Your task to perform on an android device: check battery use Image 0: 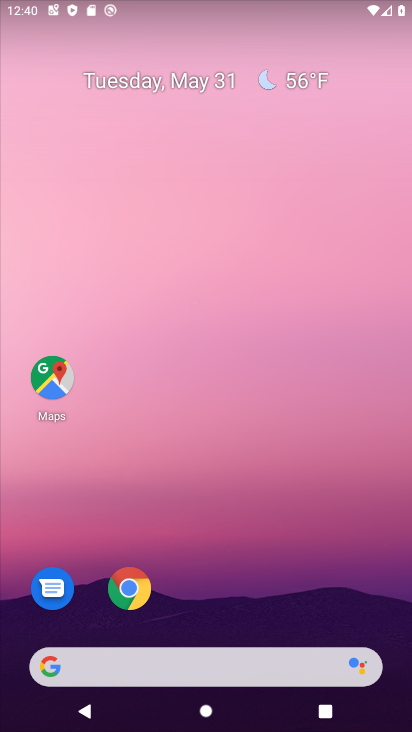
Step 0: drag from (258, 603) to (264, 182)
Your task to perform on an android device: check battery use Image 1: 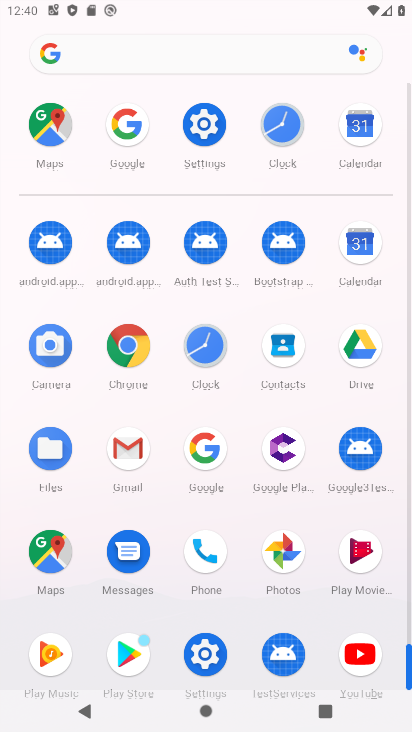
Step 1: drag from (196, 608) to (264, 114)
Your task to perform on an android device: check battery use Image 2: 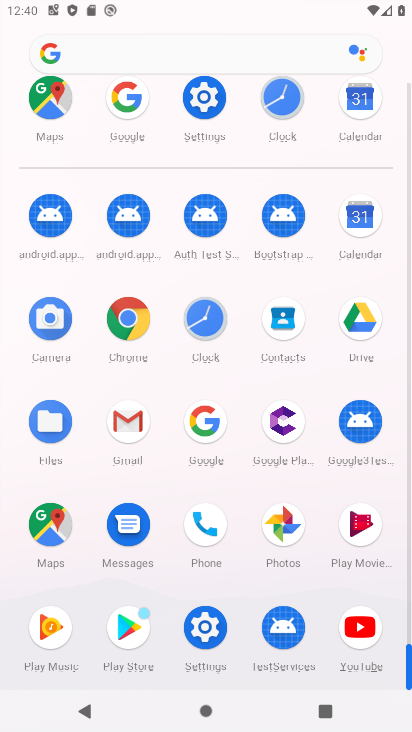
Step 2: click (206, 628)
Your task to perform on an android device: check battery use Image 3: 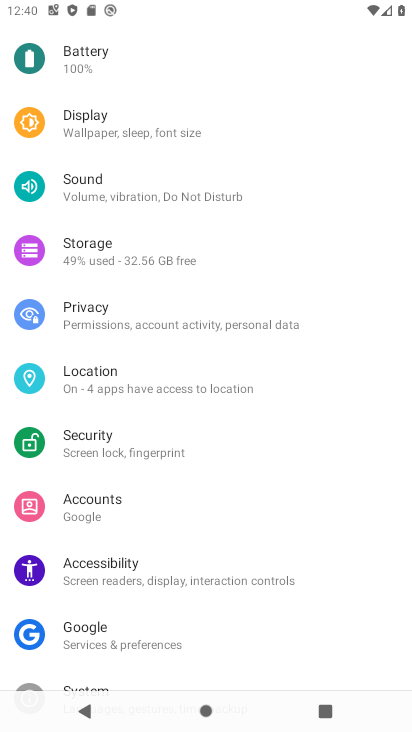
Step 3: click (72, 65)
Your task to perform on an android device: check battery use Image 4: 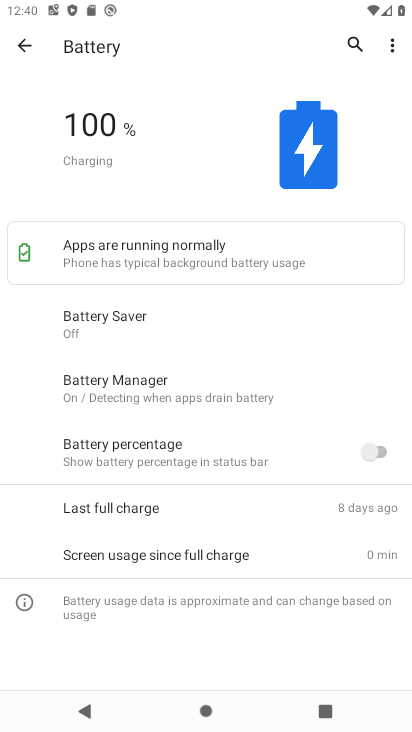
Step 4: task complete